Your task to perform on an android device: Check the news Image 0: 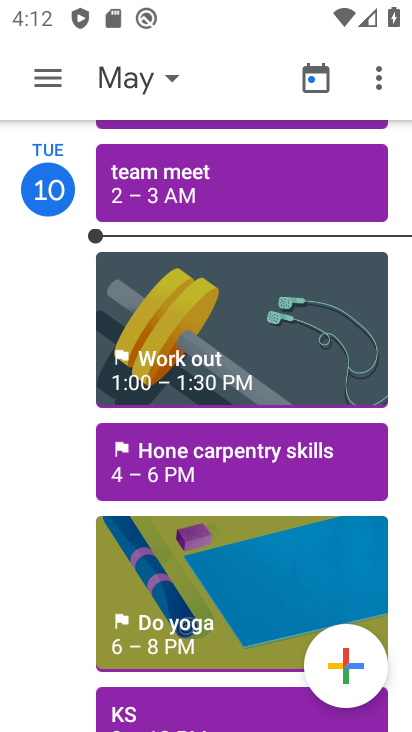
Step 0: click (43, 81)
Your task to perform on an android device: Check the news Image 1: 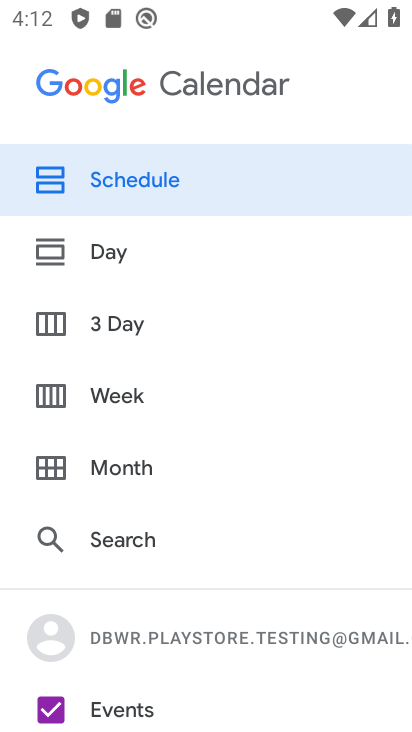
Step 1: task complete